Your task to perform on an android device: What's the weather? Image 0: 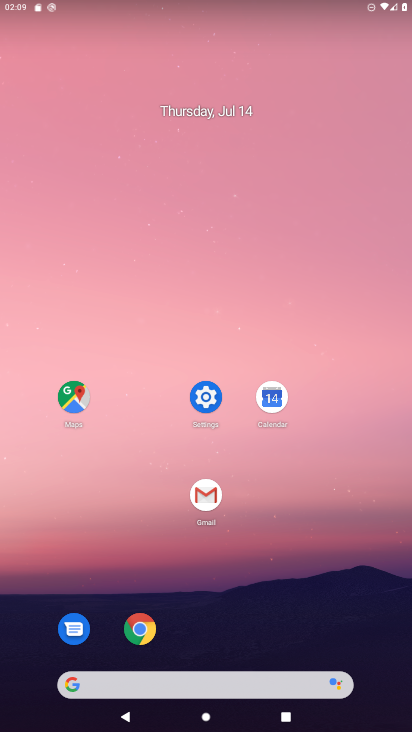
Step 0: drag from (4, 267) to (411, 284)
Your task to perform on an android device: What's the weather? Image 1: 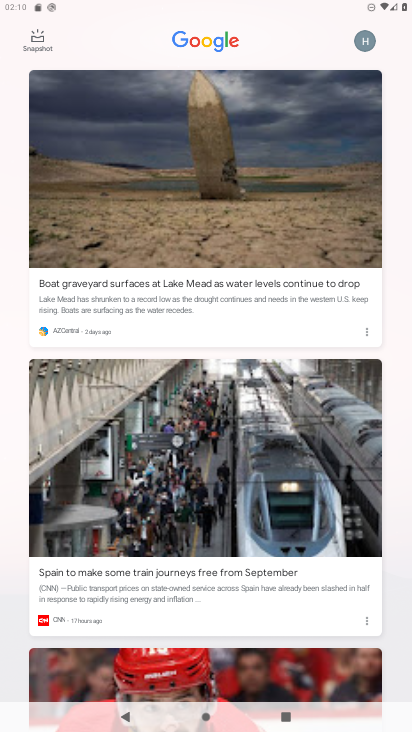
Step 1: task complete